Your task to perform on an android device: turn on bluetooth scan Image 0: 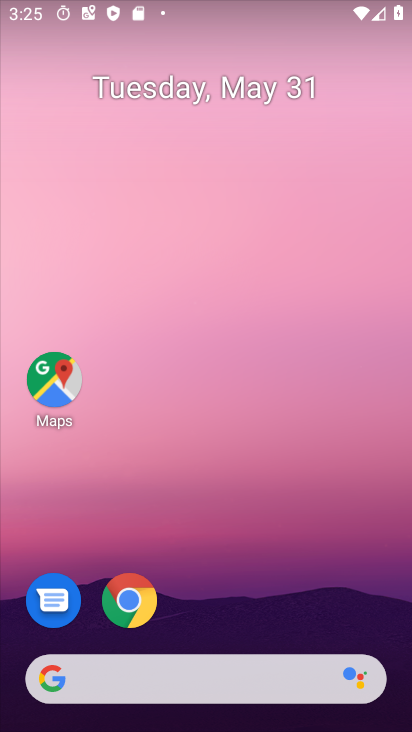
Step 0: press home button
Your task to perform on an android device: turn on bluetooth scan Image 1: 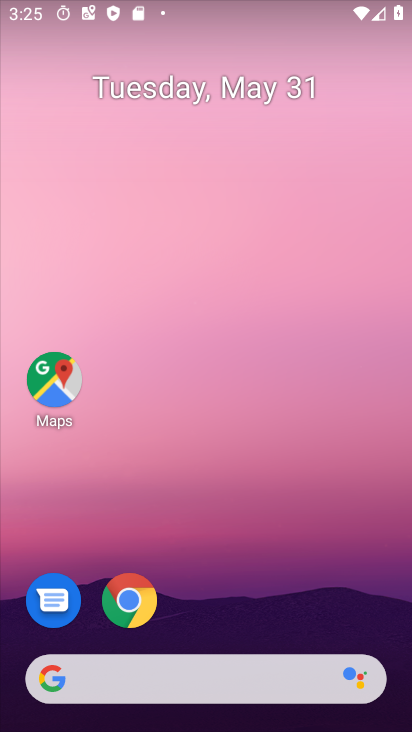
Step 1: press home button
Your task to perform on an android device: turn on bluetooth scan Image 2: 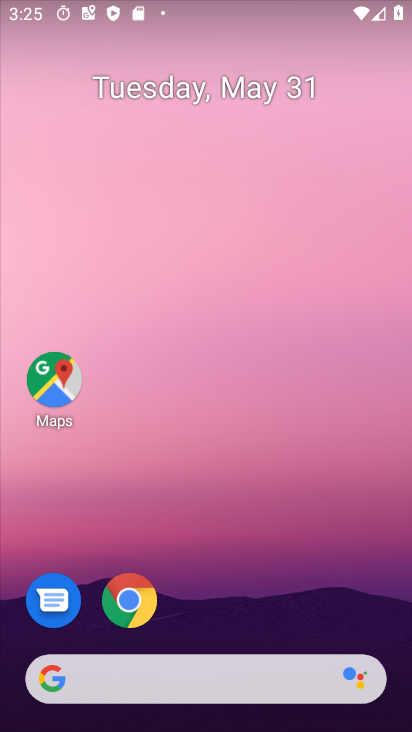
Step 2: drag from (225, 630) to (230, 9)
Your task to perform on an android device: turn on bluetooth scan Image 3: 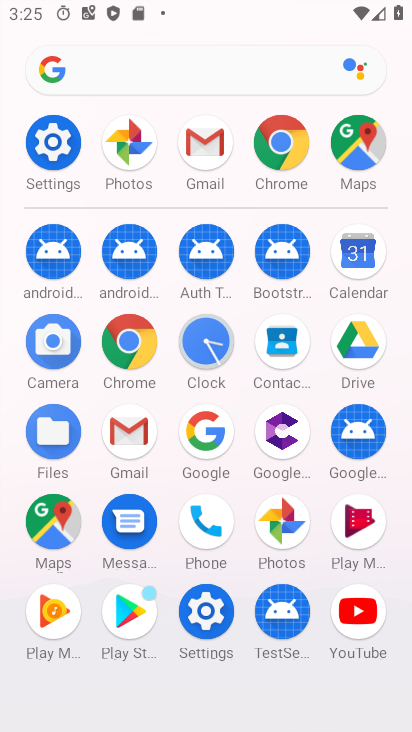
Step 3: click (50, 135)
Your task to perform on an android device: turn on bluetooth scan Image 4: 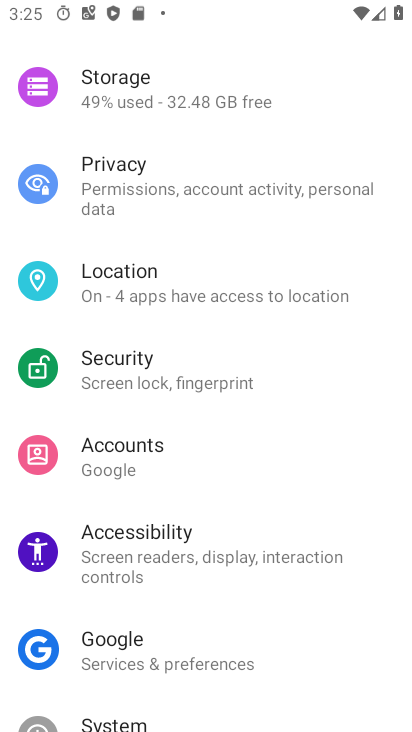
Step 4: click (179, 269)
Your task to perform on an android device: turn on bluetooth scan Image 5: 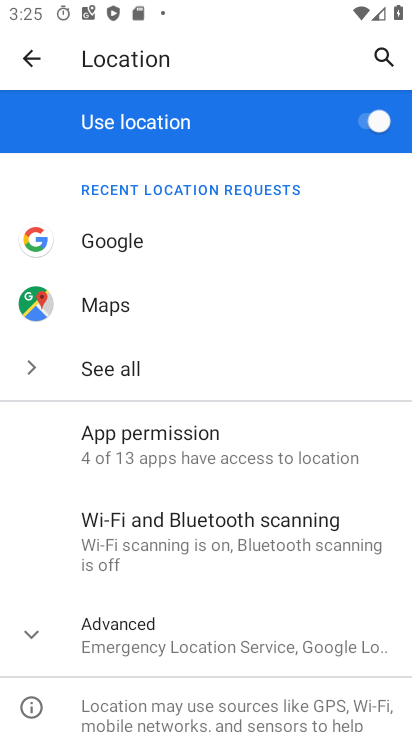
Step 5: click (253, 527)
Your task to perform on an android device: turn on bluetooth scan Image 6: 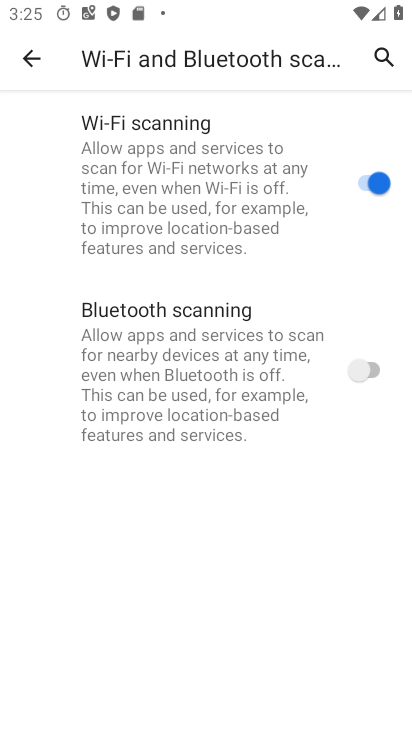
Step 6: click (370, 367)
Your task to perform on an android device: turn on bluetooth scan Image 7: 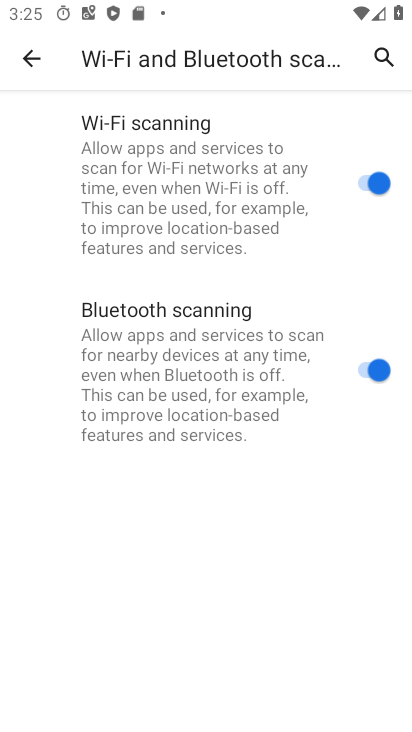
Step 7: task complete